Your task to perform on an android device: change the clock display to digital Image 0: 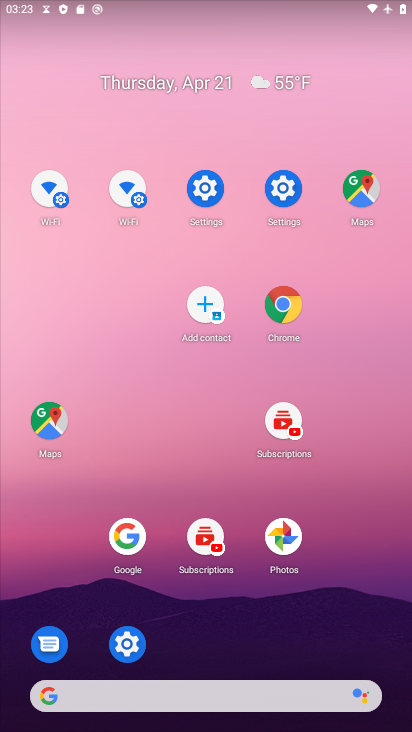
Step 0: drag from (263, 486) to (56, 53)
Your task to perform on an android device: change the clock display to digital Image 1: 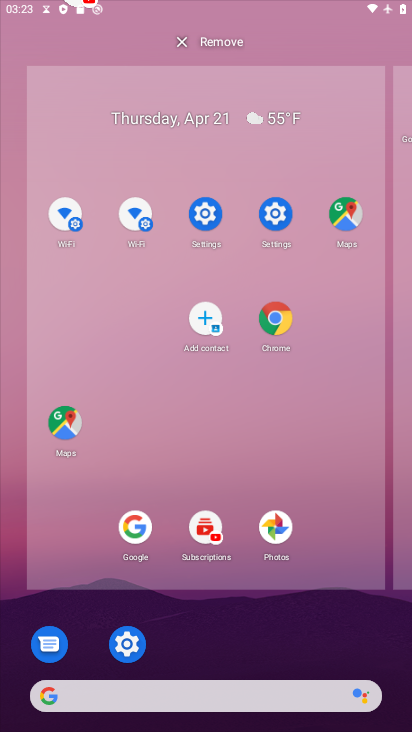
Step 1: drag from (308, 635) to (123, 147)
Your task to perform on an android device: change the clock display to digital Image 2: 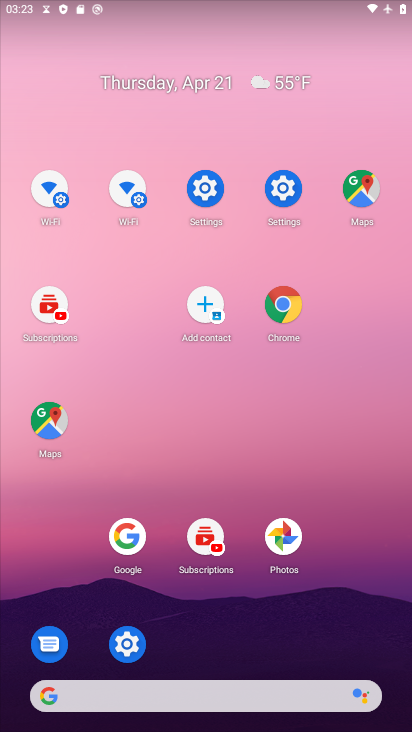
Step 2: drag from (287, 454) to (122, 34)
Your task to perform on an android device: change the clock display to digital Image 3: 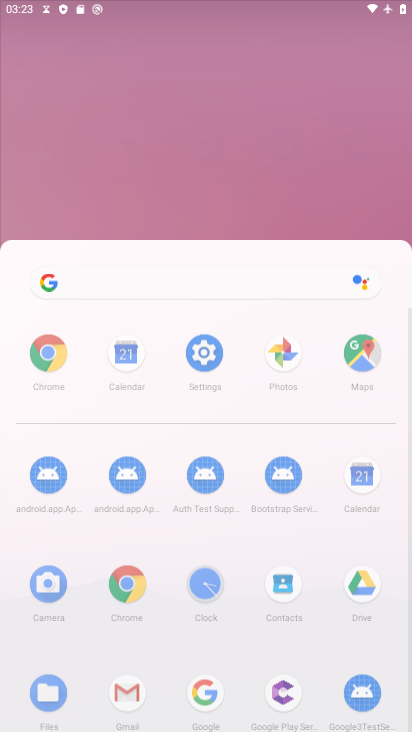
Step 3: click (132, 31)
Your task to perform on an android device: change the clock display to digital Image 4: 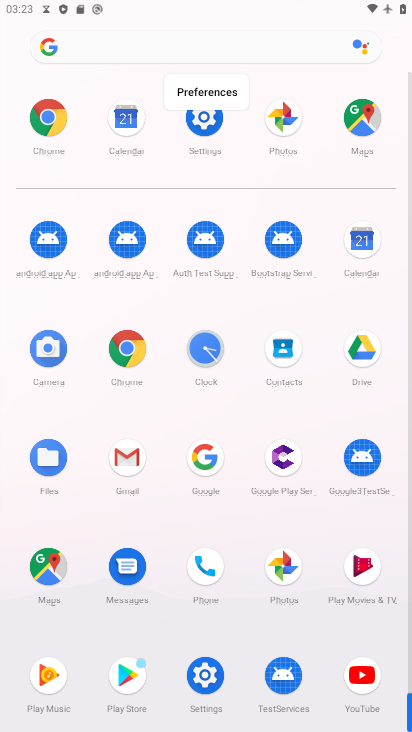
Step 4: click (204, 353)
Your task to perform on an android device: change the clock display to digital Image 5: 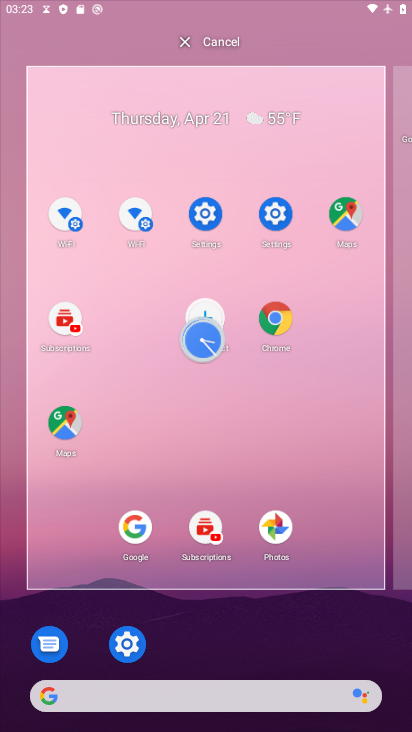
Step 5: click (203, 344)
Your task to perform on an android device: change the clock display to digital Image 6: 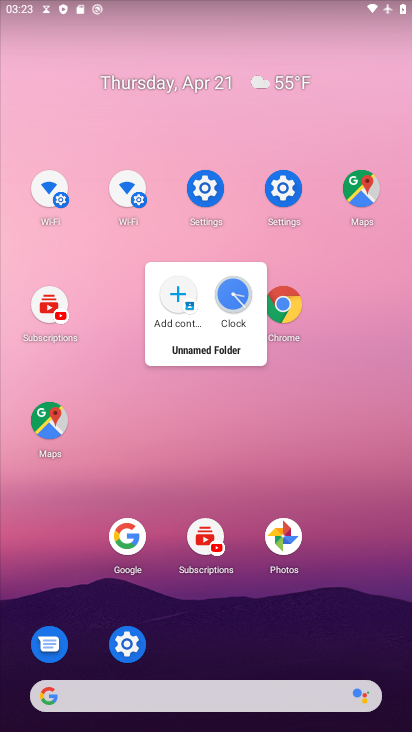
Step 6: click (250, 292)
Your task to perform on an android device: change the clock display to digital Image 7: 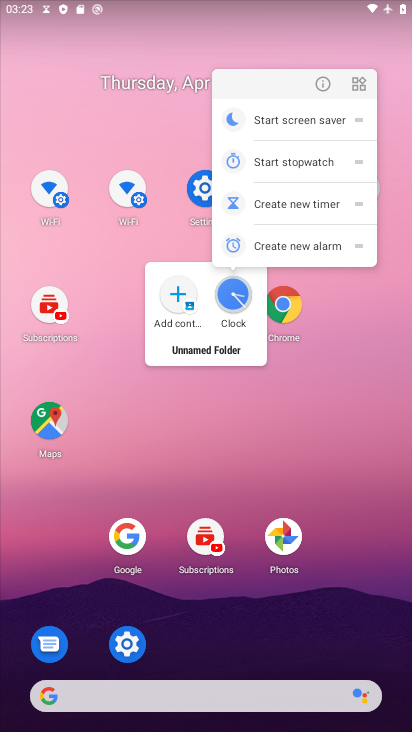
Step 7: click (224, 302)
Your task to perform on an android device: change the clock display to digital Image 8: 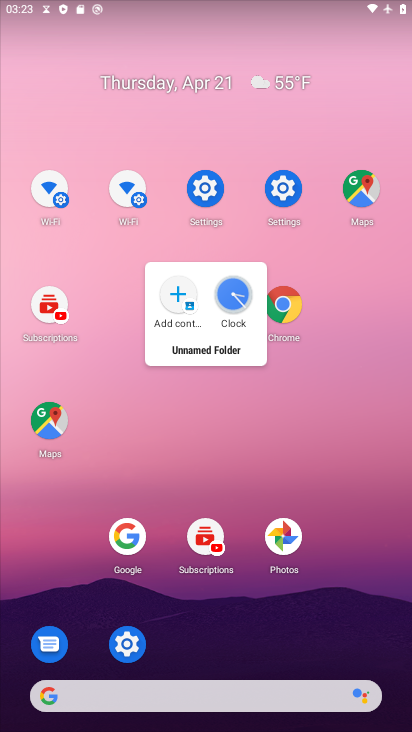
Step 8: click (228, 298)
Your task to perform on an android device: change the clock display to digital Image 9: 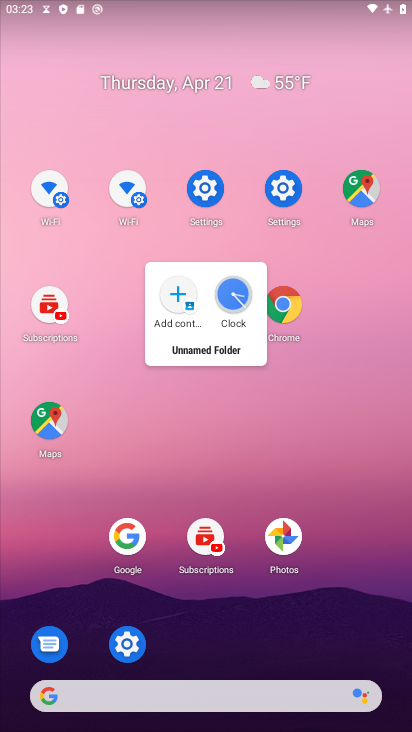
Step 9: click (232, 297)
Your task to perform on an android device: change the clock display to digital Image 10: 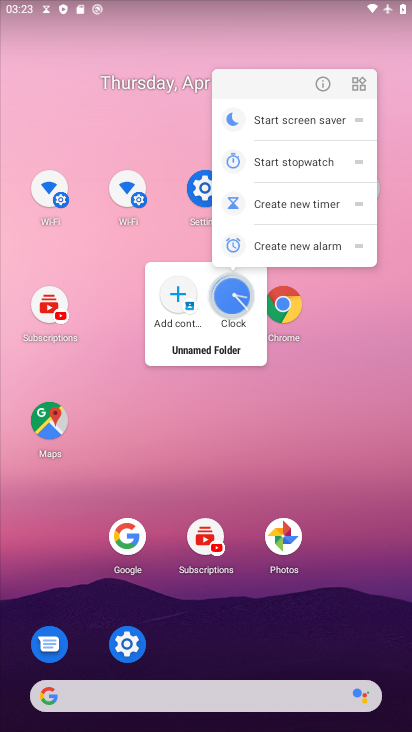
Step 10: drag from (341, 517) to (157, 25)
Your task to perform on an android device: change the clock display to digital Image 11: 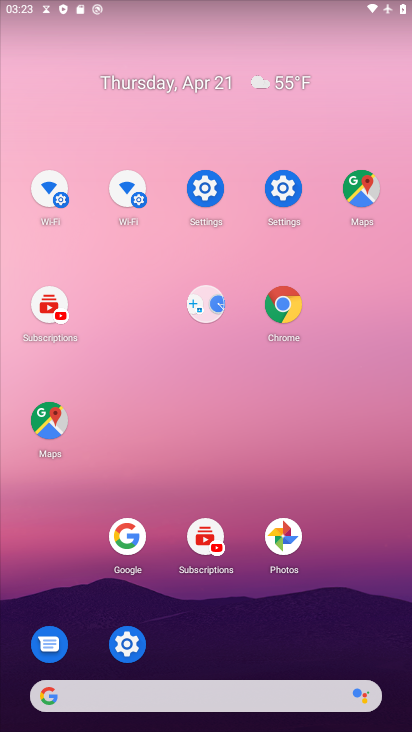
Step 11: drag from (316, 555) to (174, 38)
Your task to perform on an android device: change the clock display to digital Image 12: 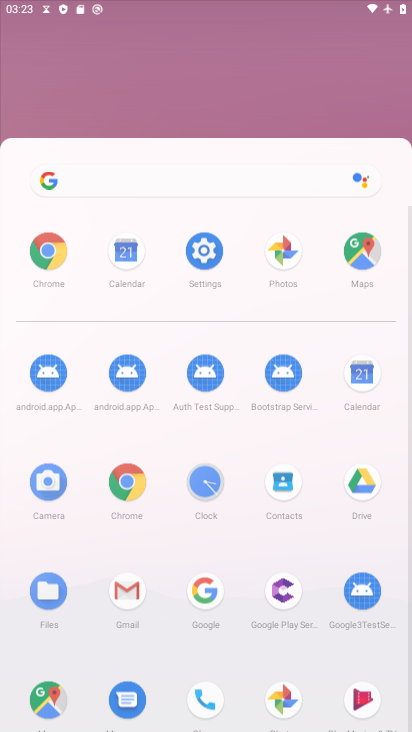
Step 12: drag from (187, 339) to (134, 243)
Your task to perform on an android device: change the clock display to digital Image 13: 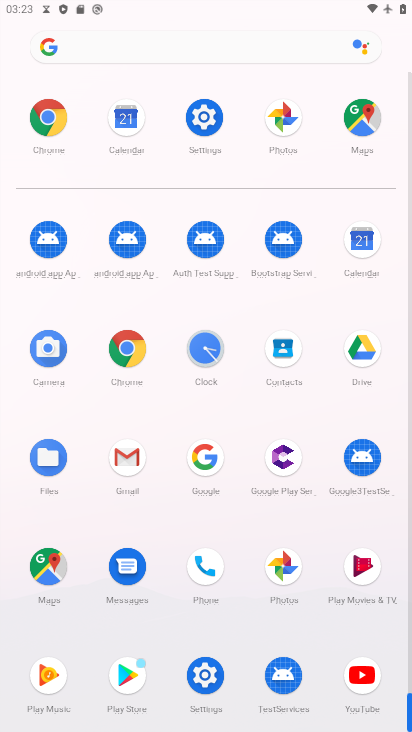
Step 13: click (204, 345)
Your task to perform on an android device: change the clock display to digital Image 14: 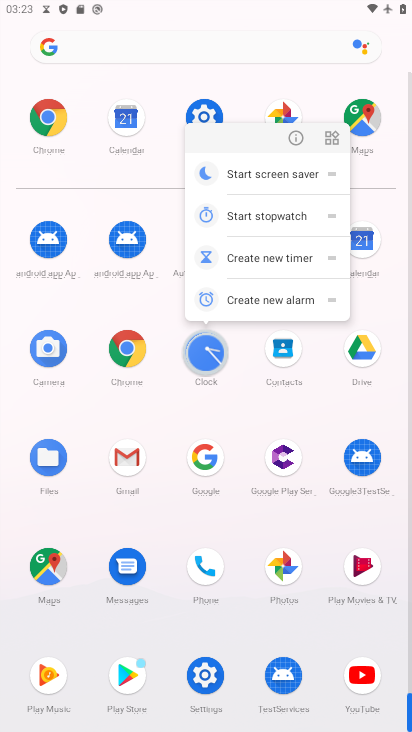
Step 14: click (201, 350)
Your task to perform on an android device: change the clock display to digital Image 15: 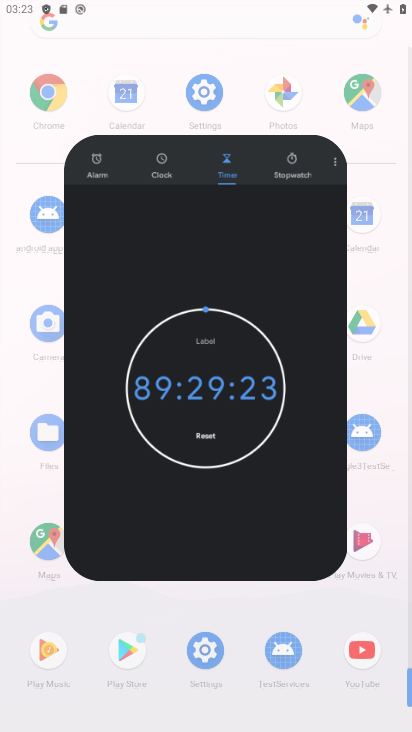
Step 15: click (201, 350)
Your task to perform on an android device: change the clock display to digital Image 16: 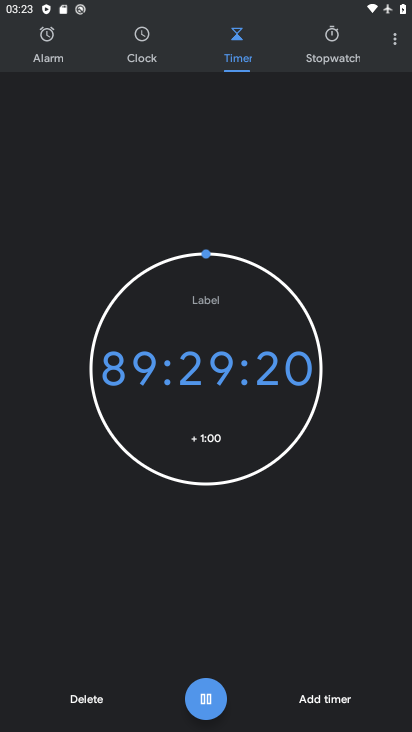
Step 16: click (398, 34)
Your task to perform on an android device: change the clock display to digital Image 17: 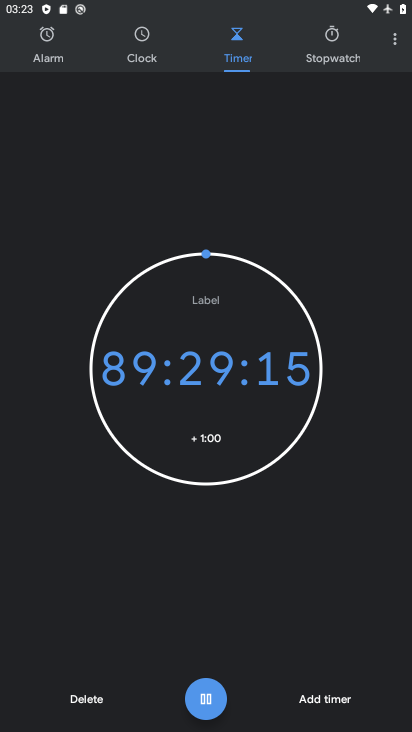
Step 17: click (392, 40)
Your task to perform on an android device: change the clock display to digital Image 18: 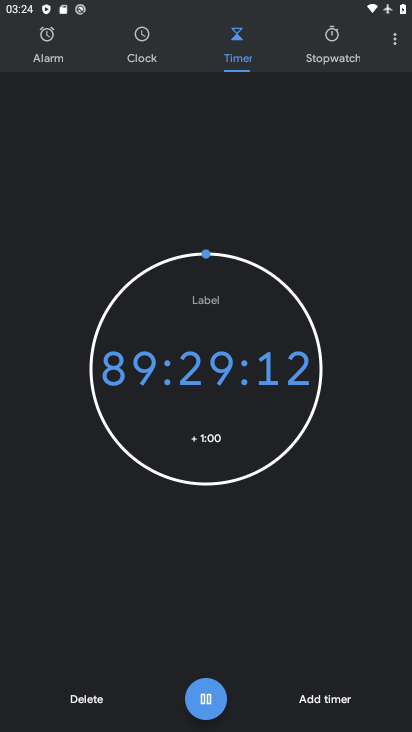
Step 18: click (387, 36)
Your task to perform on an android device: change the clock display to digital Image 19: 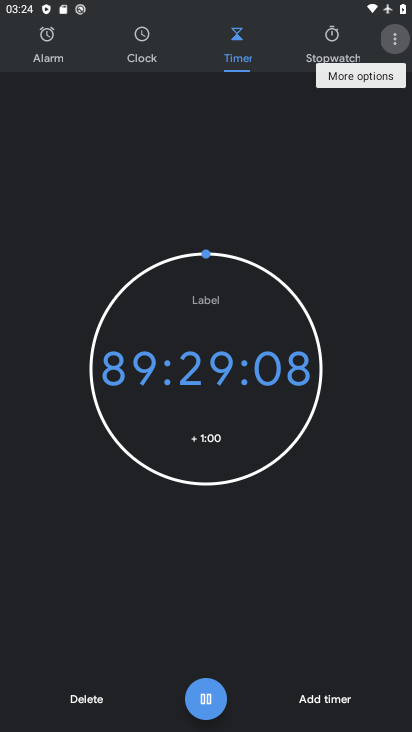
Step 19: click (395, 29)
Your task to perform on an android device: change the clock display to digital Image 20: 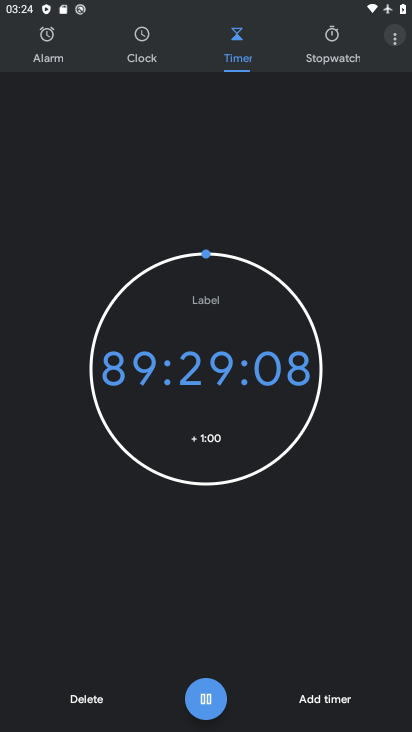
Step 20: click (395, 28)
Your task to perform on an android device: change the clock display to digital Image 21: 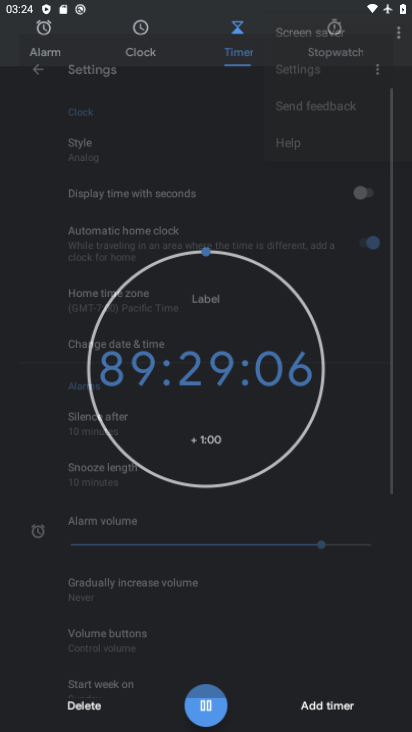
Step 21: click (284, 79)
Your task to perform on an android device: change the clock display to digital Image 22: 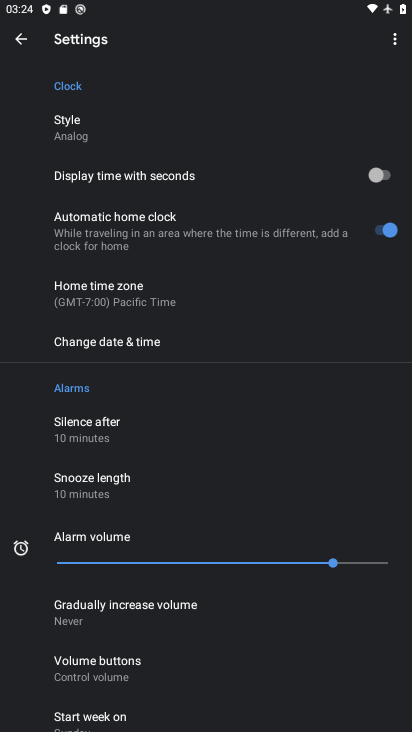
Step 22: click (85, 128)
Your task to perform on an android device: change the clock display to digital Image 23: 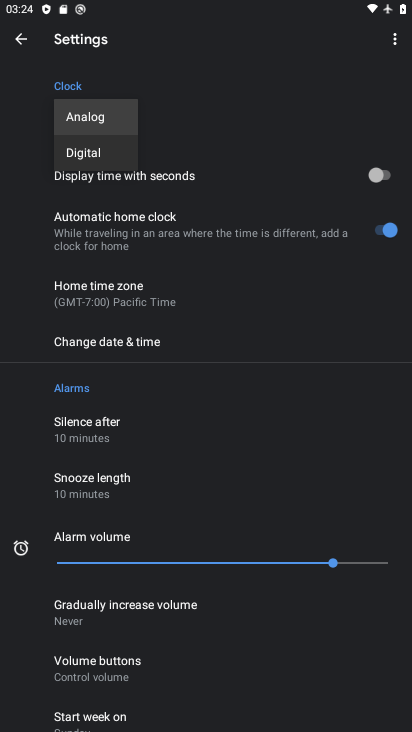
Step 23: click (89, 153)
Your task to perform on an android device: change the clock display to digital Image 24: 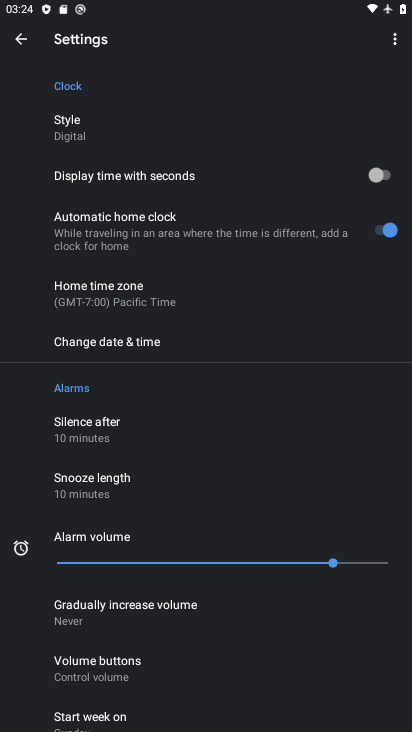
Step 24: task complete